Your task to perform on an android device: Search for pizza restaurants on Maps Image 0: 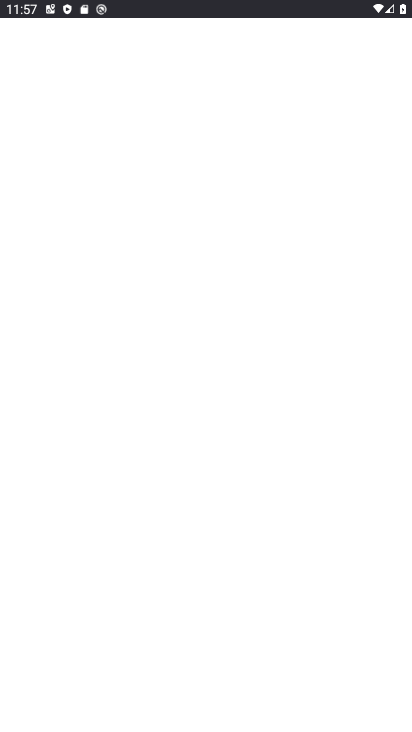
Step 0: drag from (204, 726) to (191, 152)
Your task to perform on an android device: Search for pizza restaurants on Maps Image 1: 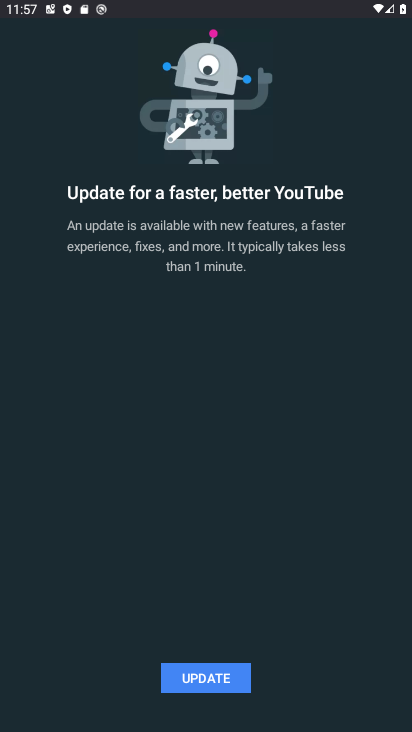
Step 1: press home button
Your task to perform on an android device: Search for pizza restaurants on Maps Image 2: 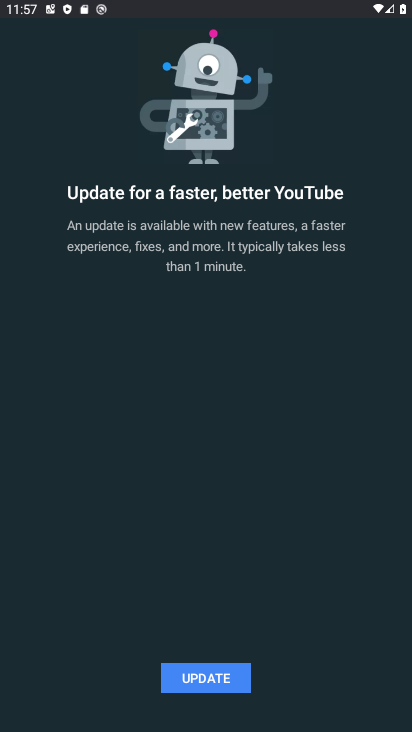
Step 2: press home button
Your task to perform on an android device: Search for pizza restaurants on Maps Image 3: 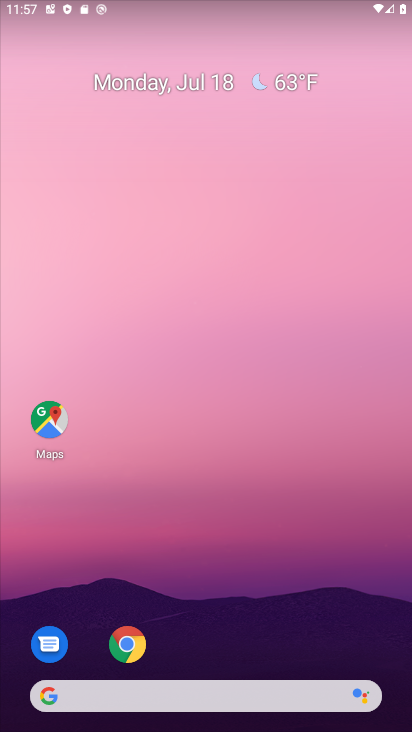
Step 3: drag from (222, 717) to (197, 349)
Your task to perform on an android device: Search for pizza restaurants on Maps Image 4: 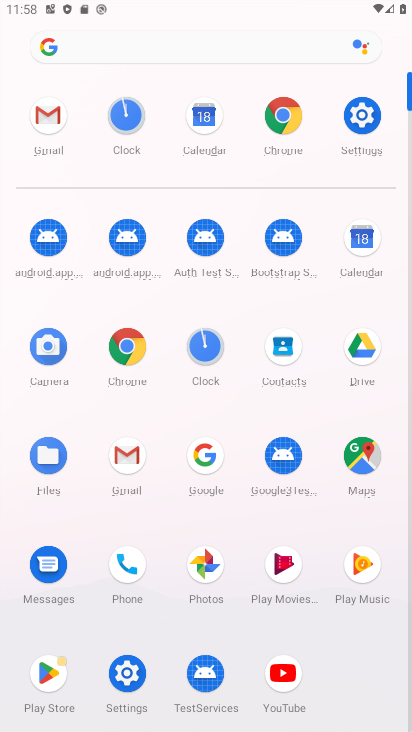
Step 4: click (367, 449)
Your task to perform on an android device: Search for pizza restaurants on Maps Image 5: 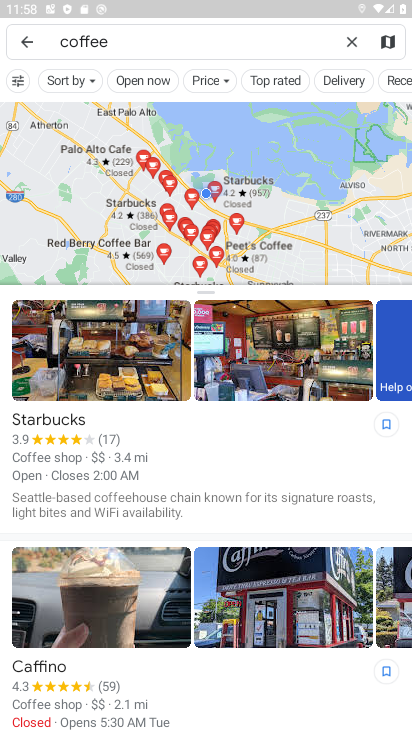
Step 5: click (351, 36)
Your task to perform on an android device: Search for pizza restaurants on Maps Image 6: 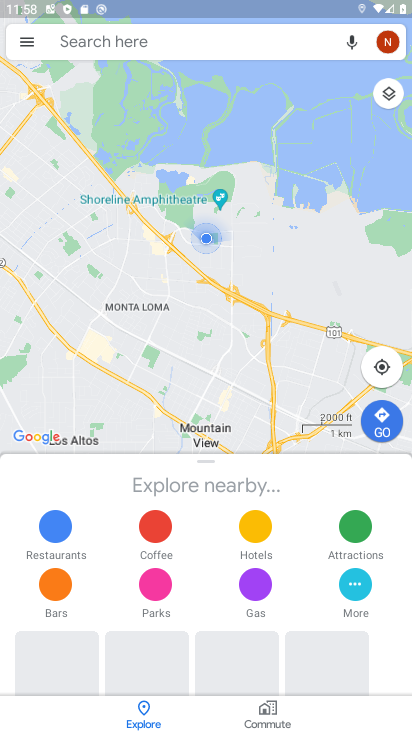
Step 6: click (220, 39)
Your task to perform on an android device: Search for pizza restaurants on Maps Image 7: 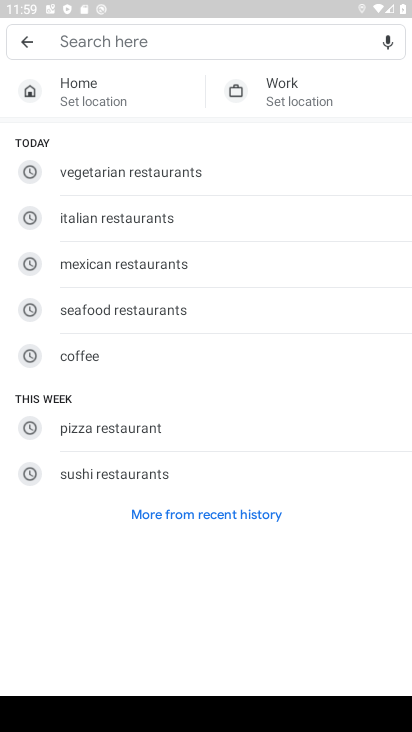
Step 7: type "Pizza restaurants"
Your task to perform on an android device: Search for pizza restaurants on Maps Image 8: 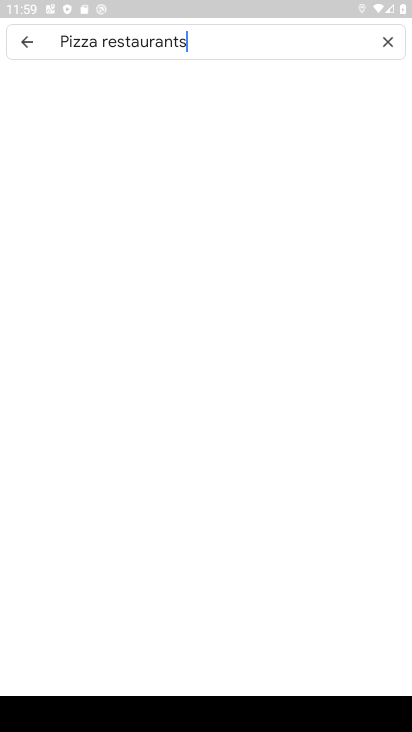
Step 8: type ""
Your task to perform on an android device: Search for pizza restaurants on Maps Image 9: 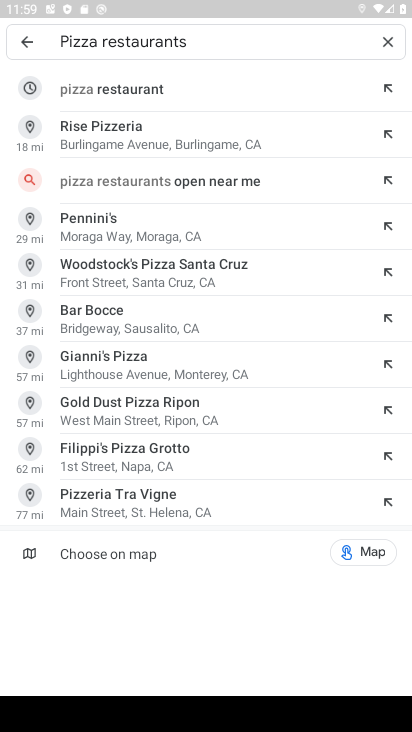
Step 9: click (135, 89)
Your task to perform on an android device: Search for pizza restaurants on Maps Image 10: 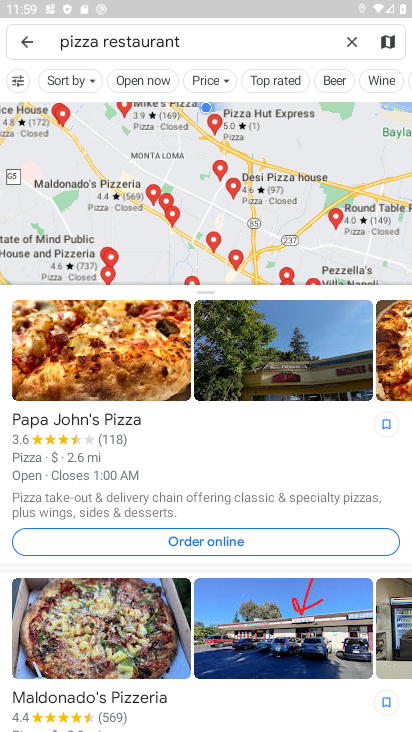
Step 10: task complete